Your task to perform on an android device: make emails show in primary in the gmail app Image 0: 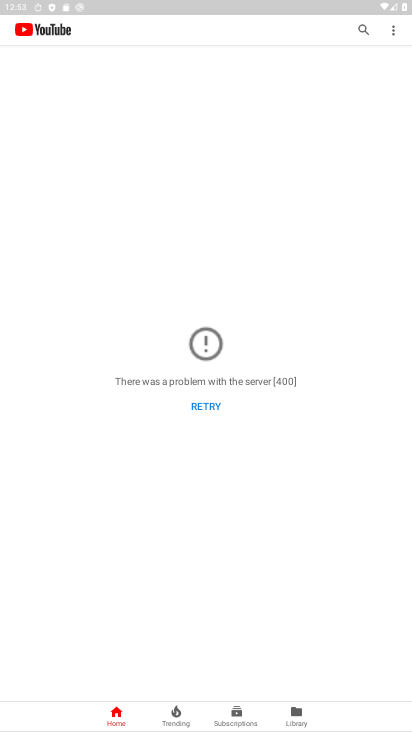
Step 0: press home button
Your task to perform on an android device: make emails show in primary in the gmail app Image 1: 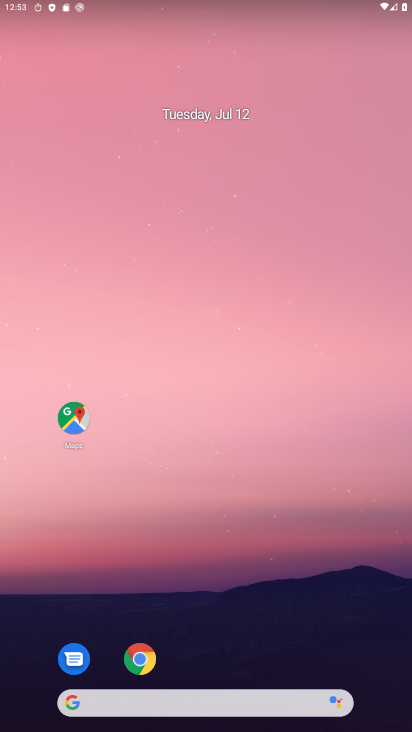
Step 1: drag from (329, 611) to (294, 105)
Your task to perform on an android device: make emails show in primary in the gmail app Image 2: 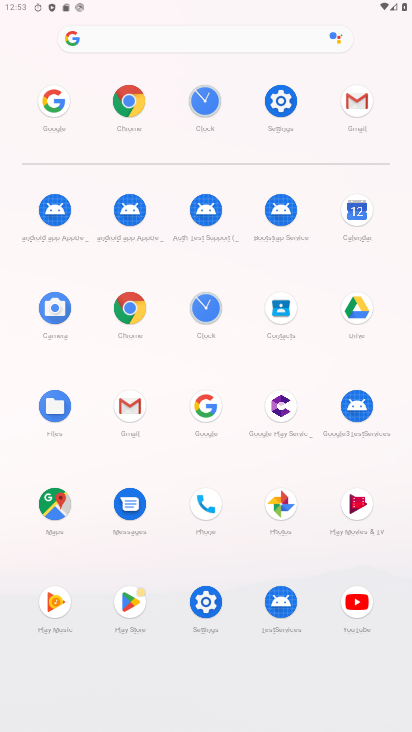
Step 2: click (362, 102)
Your task to perform on an android device: make emails show in primary in the gmail app Image 3: 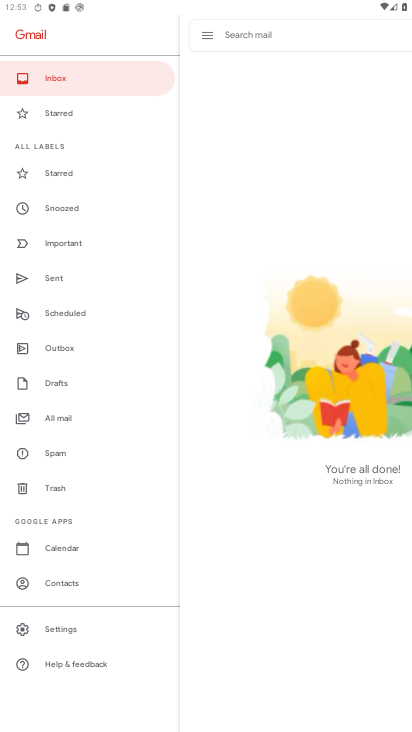
Step 3: click (58, 627)
Your task to perform on an android device: make emails show in primary in the gmail app Image 4: 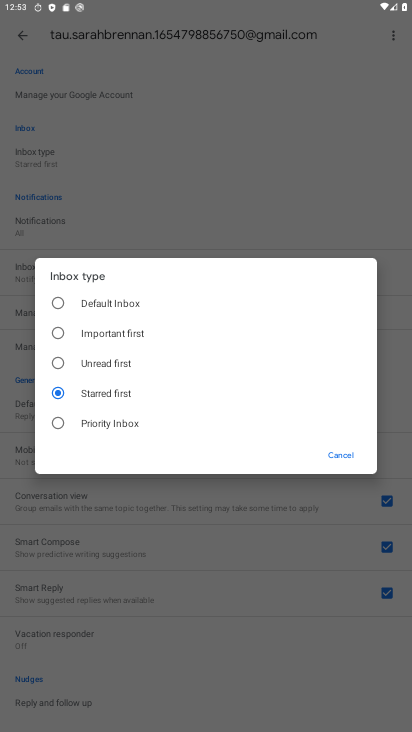
Step 4: click (117, 298)
Your task to perform on an android device: make emails show in primary in the gmail app Image 5: 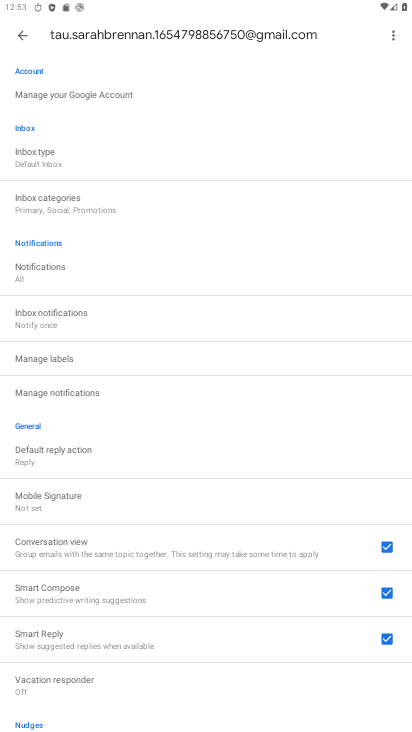
Step 5: click (86, 209)
Your task to perform on an android device: make emails show in primary in the gmail app Image 6: 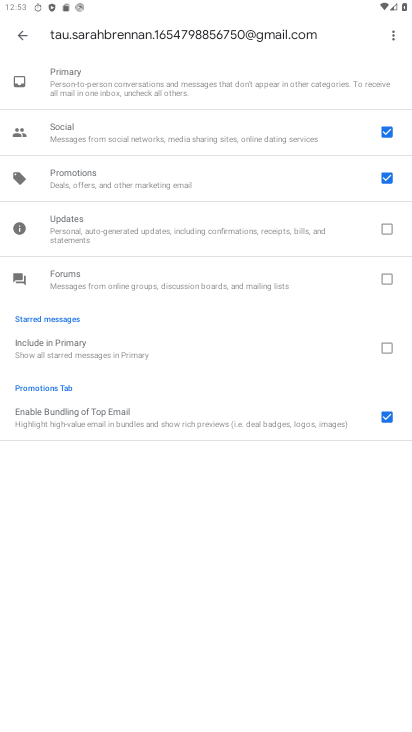
Step 6: task complete